Your task to perform on an android device: Open calendar and show me the first week of next month Image 0: 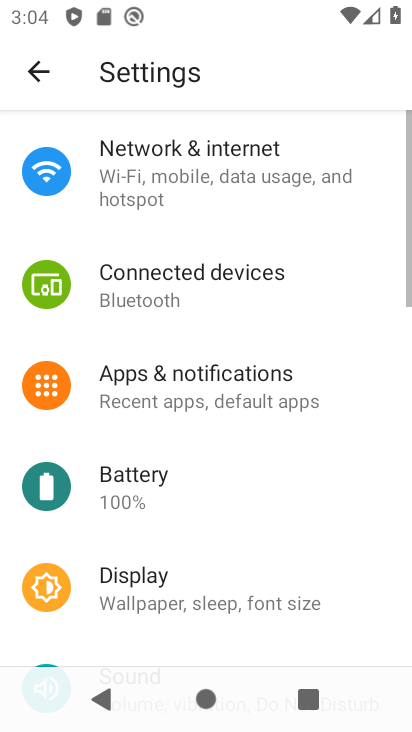
Step 0: press home button
Your task to perform on an android device: Open calendar and show me the first week of next month Image 1: 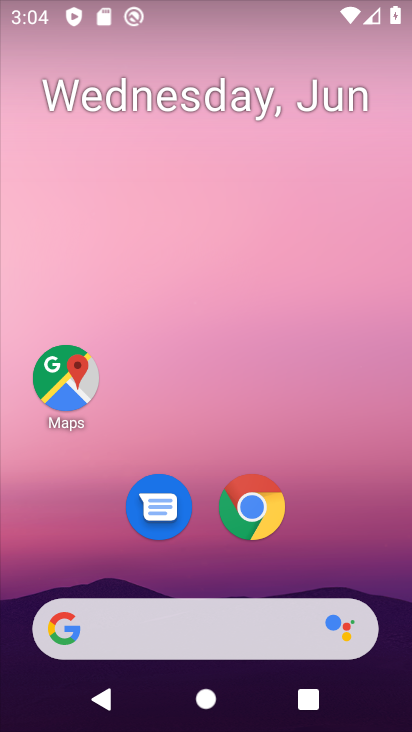
Step 1: click (261, 105)
Your task to perform on an android device: Open calendar and show me the first week of next month Image 2: 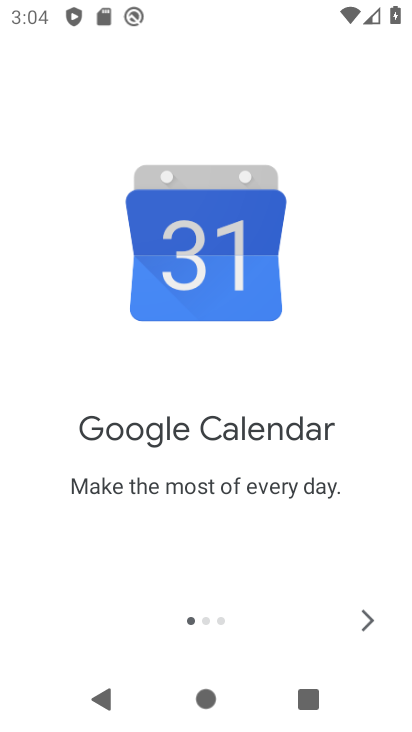
Step 2: click (362, 617)
Your task to perform on an android device: Open calendar and show me the first week of next month Image 3: 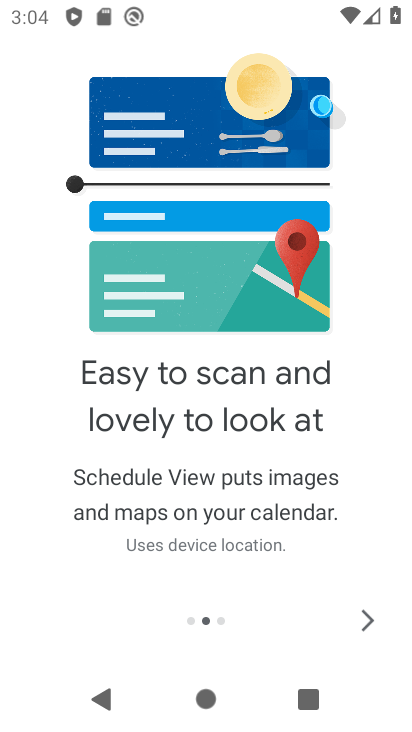
Step 3: click (362, 617)
Your task to perform on an android device: Open calendar and show me the first week of next month Image 4: 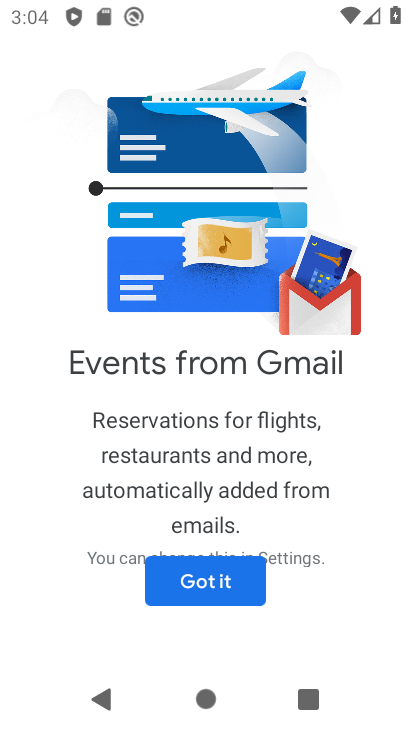
Step 4: click (146, 570)
Your task to perform on an android device: Open calendar and show me the first week of next month Image 5: 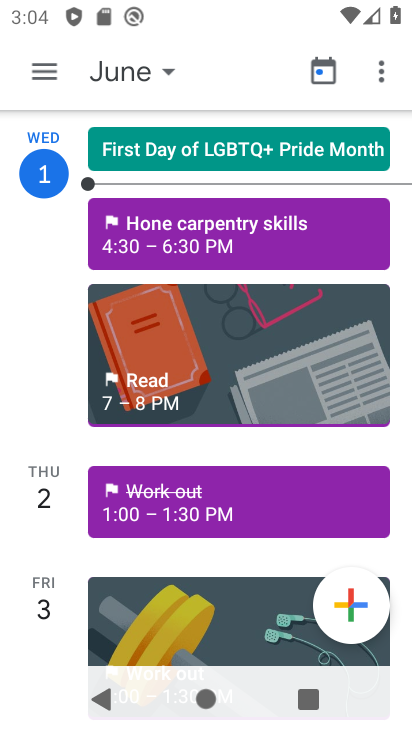
Step 5: click (156, 87)
Your task to perform on an android device: Open calendar and show me the first week of next month Image 6: 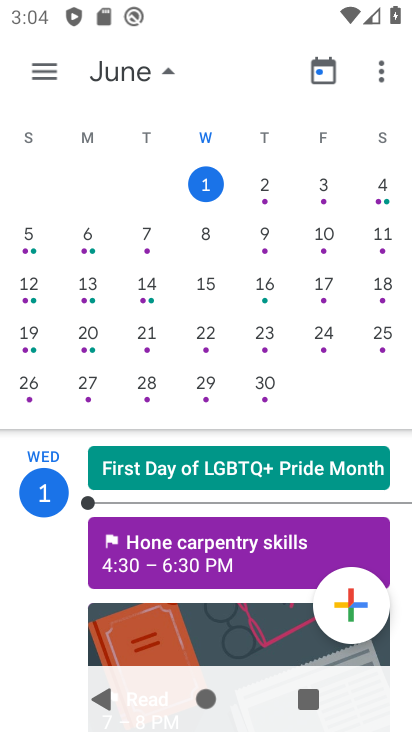
Step 6: task complete